Your task to perform on an android device: set the stopwatch Image 0: 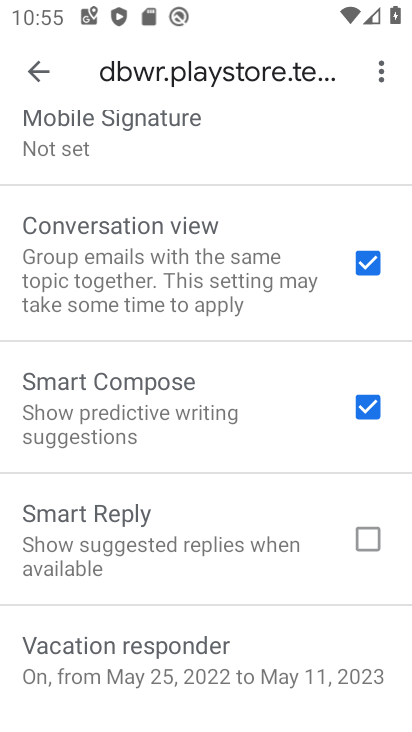
Step 0: press home button
Your task to perform on an android device: set the stopwatch Image 1: 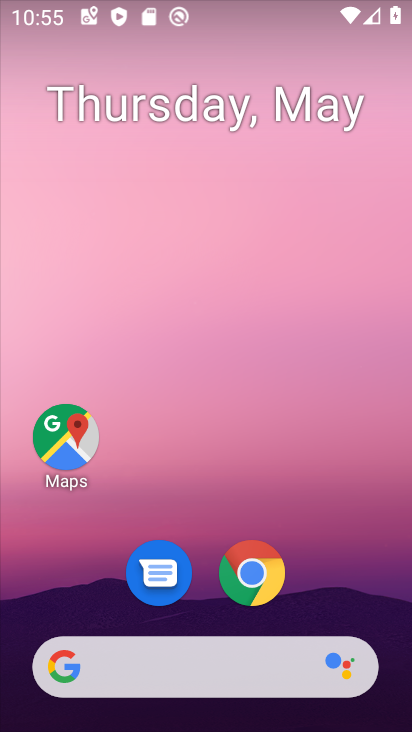
Step 1: drag from (78, 611) to (213, 32)
Your task to perform on an android device: set the stopwatch Image 2: 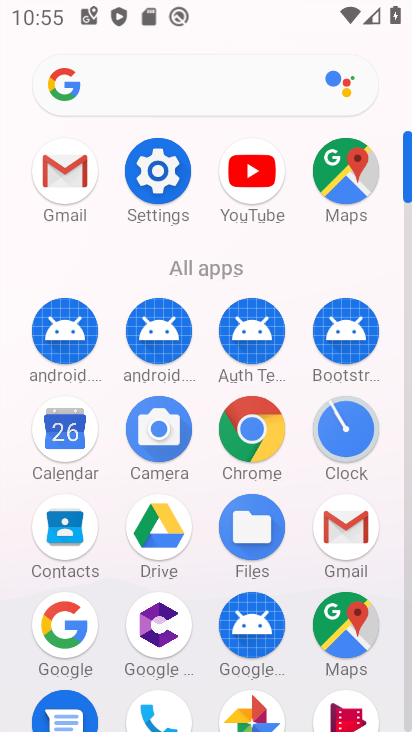
Step 2: click (337, 417)
Your task to perform on an android device: set the stopwatch Image 3: 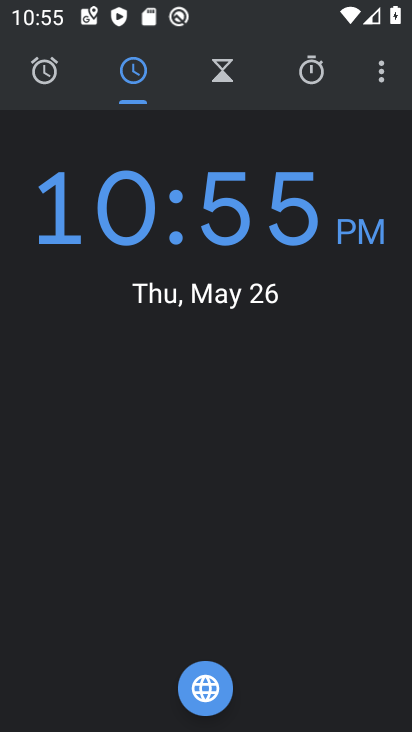
Step 3: click (322, 79)
Your task to perform on an android device: set the stopwatch Image 4: 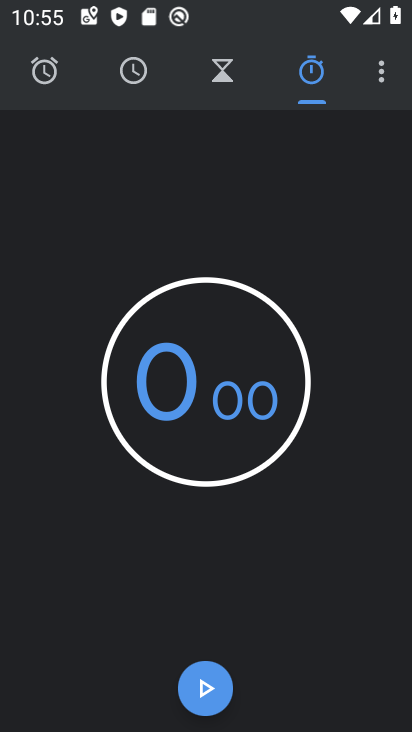
Step 4: click (224, 698)
Your task to perform on an android device: set the stopwatch Image 5: 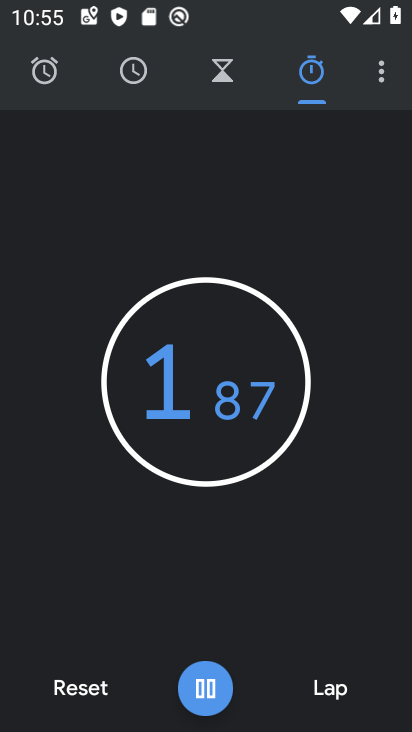
Step 5: task complete